Your task to perform on an android device: turn off sleep mode Image 0: 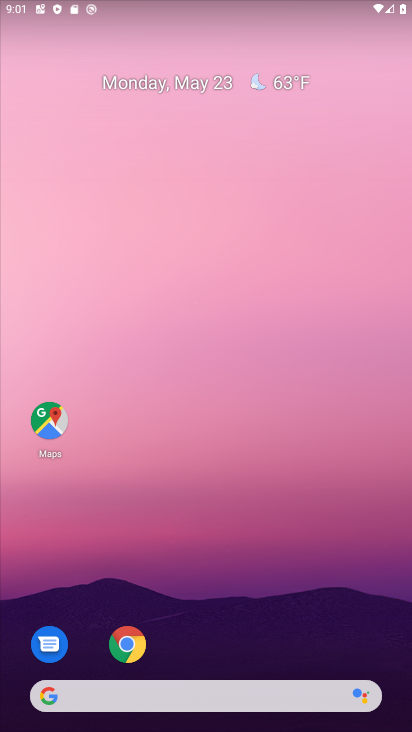
Step 0: press home button
Your task to perform on an android device: turn off sleep mode Image 1: 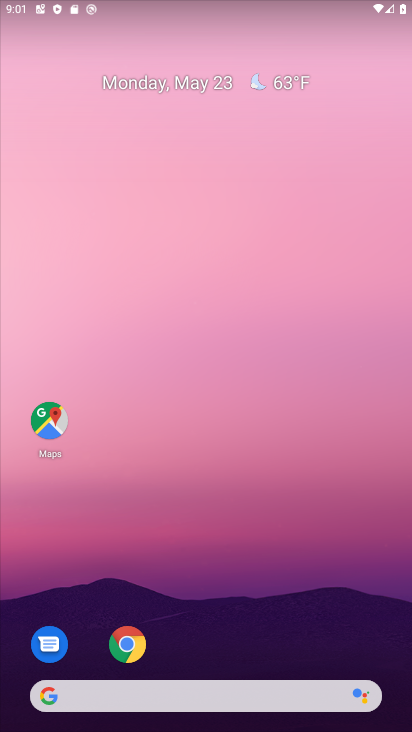
Step 1: drag from (221, 664) to (254, 3)
Your task to perform on an android device: turn off sleep mode Image 2: 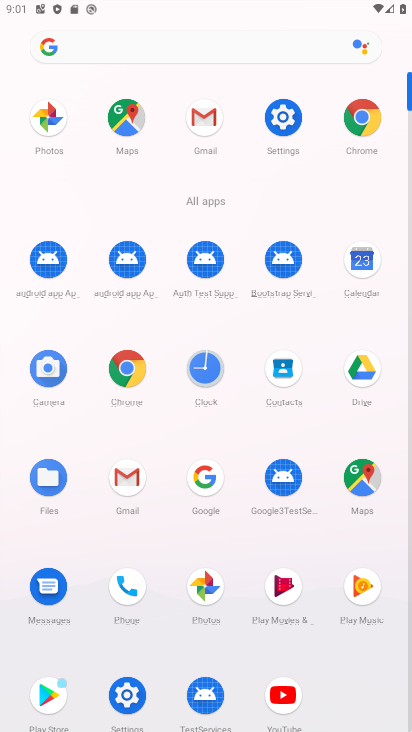
Step 2: click (278, 113)
Your task to perform on an android device: turn off sleep mode Image 3: 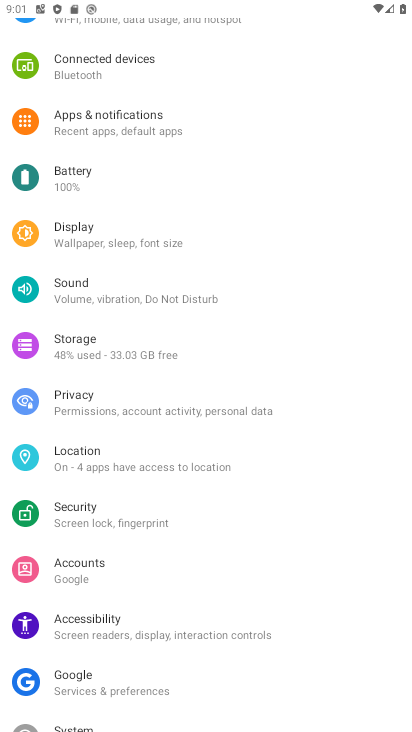
Step 3: click (107, 228)
Your task to perform on an android device: turn off sleep mode Image 4: 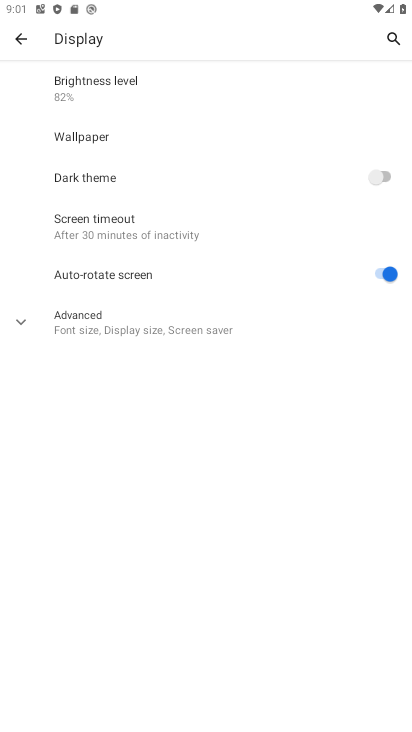
Step 4: click (21, 317)
Your task to perform on an android device: turn off sleep mode Image 5: 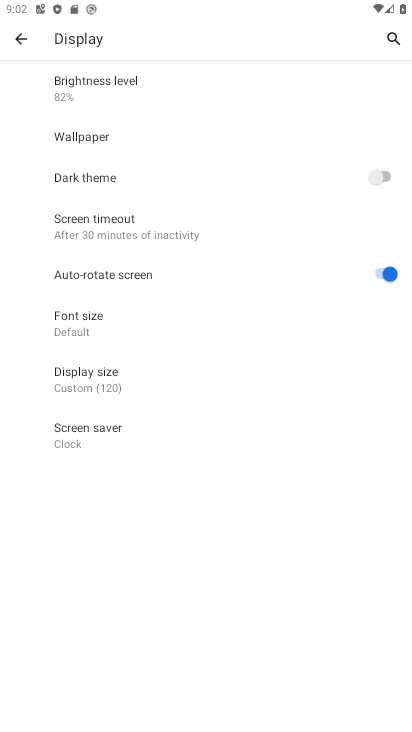
Step 5: task complete